Your task to perform on an android device: What is the recent news? Image 0: 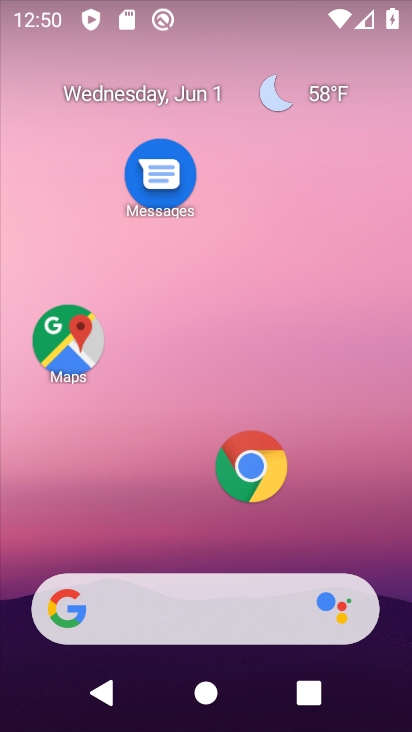
Step 0: click (199, 602)
Your task to perform on an android device: What is the recent news? Image 1: 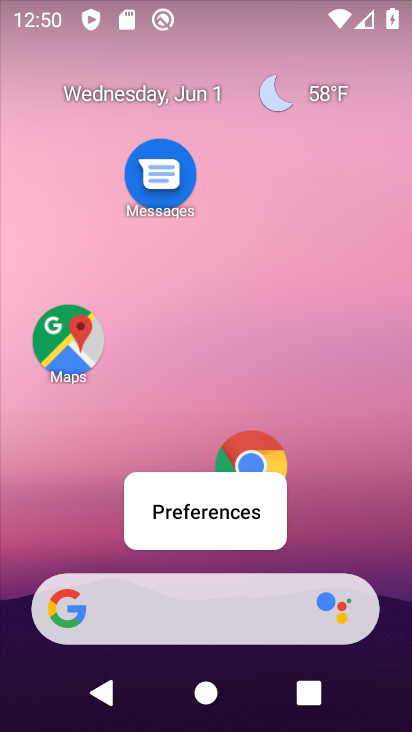
Step 1: click (214, 607)
Your task to perform on an android device: What is the recent news? Image 2: 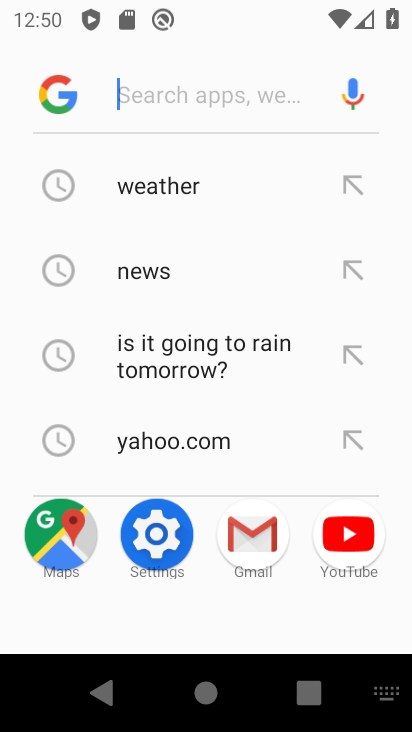
Step 2: click (173, 275)
Your task to perform on an android device: What is the recent news? Image 3: 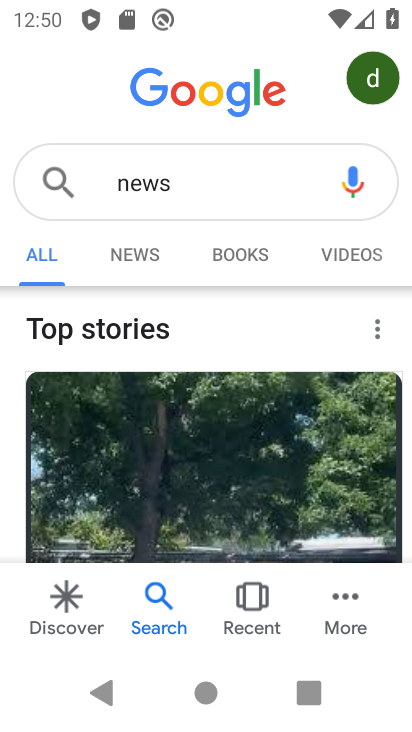
Step 3: task complete